Your task to perform on an android device: Toggle the flashlight Image 0: 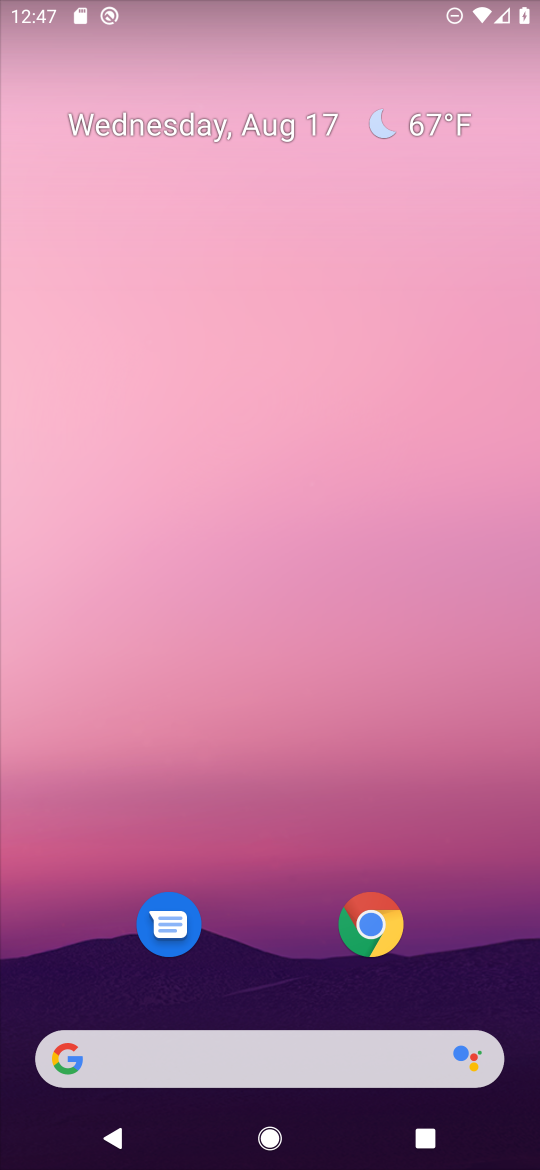
Step 0: drag from (267, 984) to (335, 59)
Your task to perform on an android device: Toggle the flashlight Image 1: 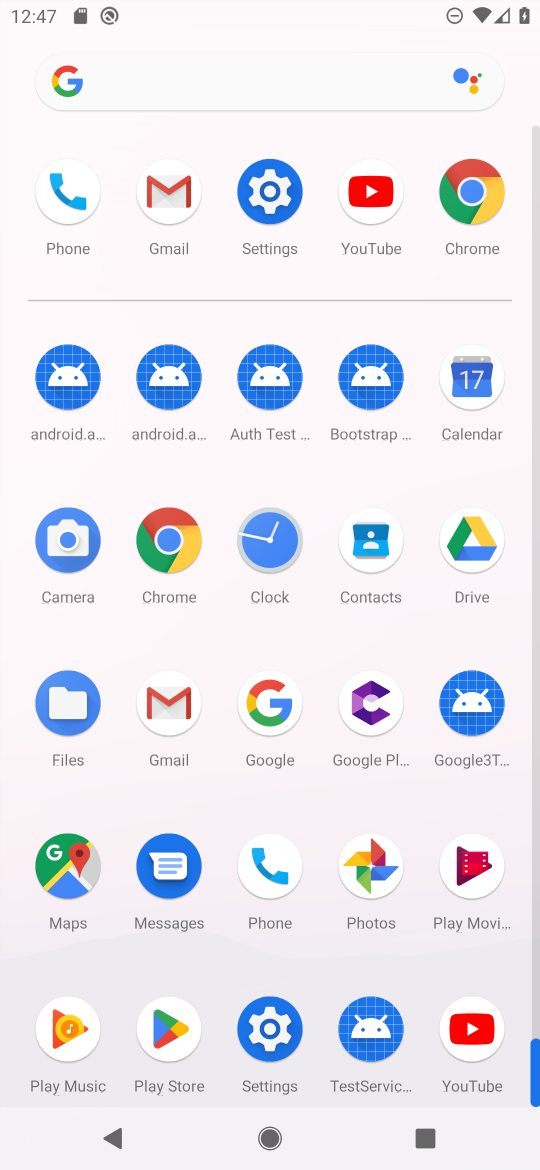
Step 1: click (268, 196)
Your task to perform on an android device: Toggle the flashlight Image 2: 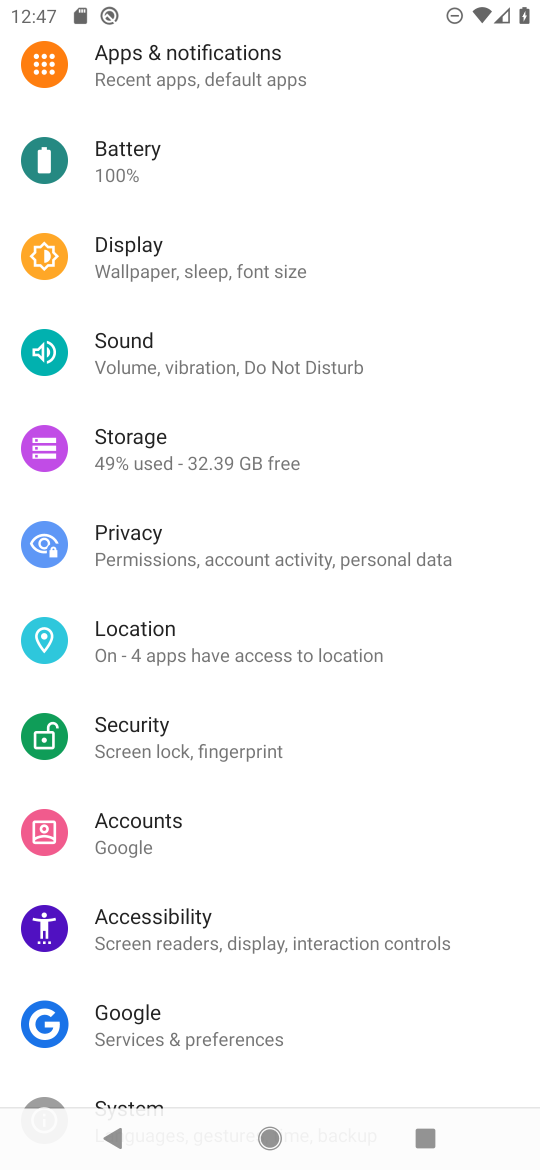
Step 2: task complete